Your task to perform on an android device: Do I have any events this weekend? Image 0: 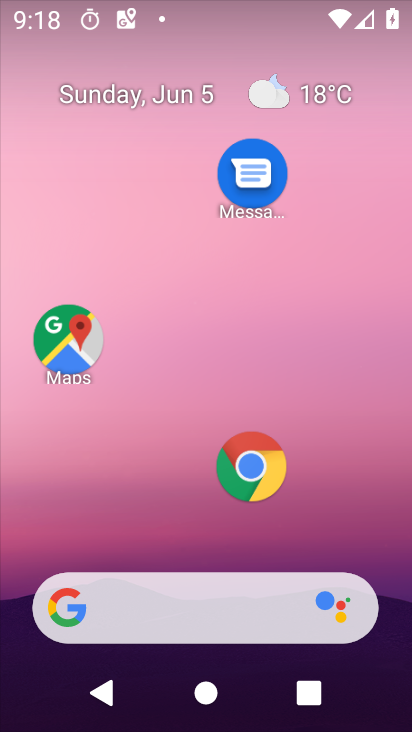
Step 0: drag from (190, 536) to (216, 172)
Your task to perform on an android device: Do I have any events this weekend? Image 1: 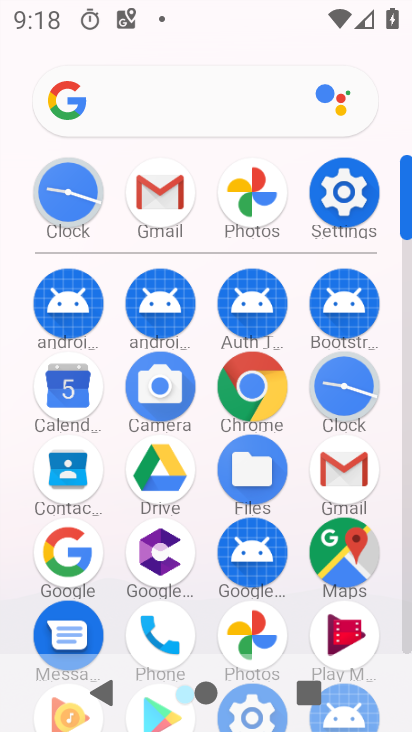
Step 1: click (69, 373)
Your task to perform on an android device: Do I have any events this weekend? Image 2: 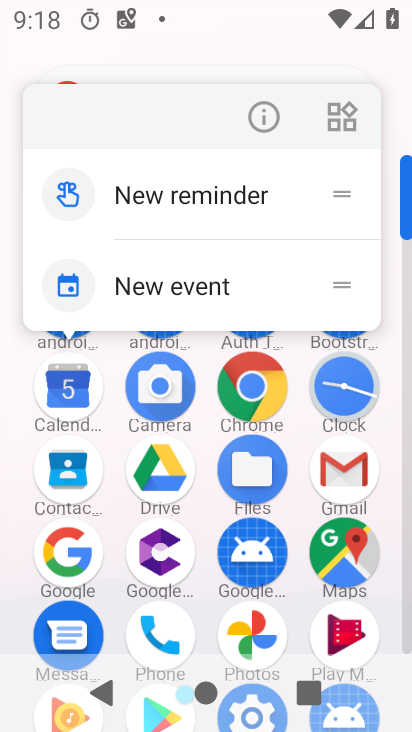
Step 2: click (267, 114)
Your task to perform on an android device: Do I have any events this weekend? Image 3: 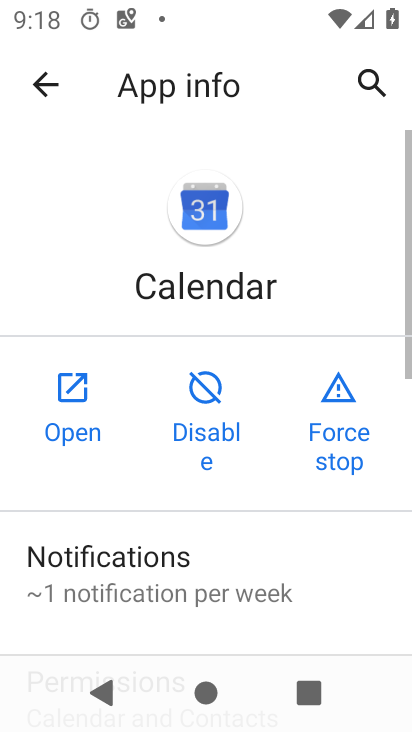
Step 3: click (59, 394)
Your task to perform on an android device: Do I have any events this weekend? Image 4: 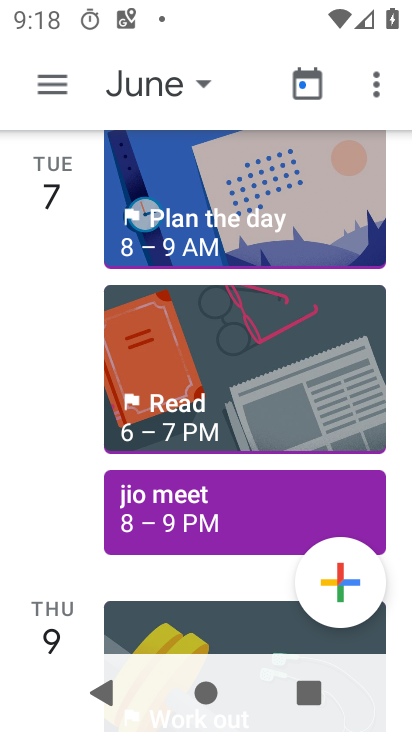
Step 4: drag from (178, 589) to (210, 174)
Your task to perform on an android device: Do I have any events this weekend? Image 5: 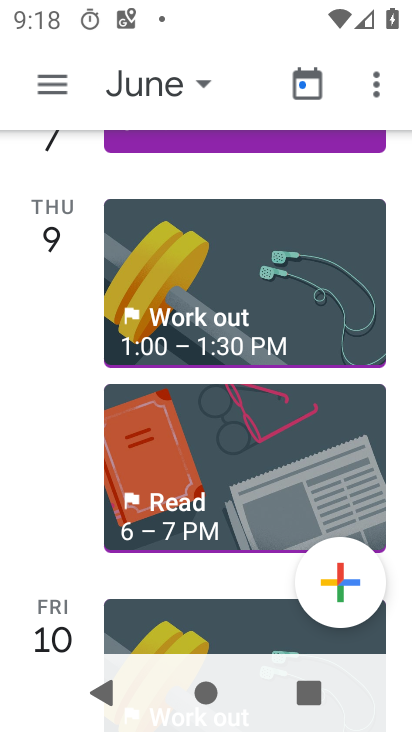
Step 5: click (158, 87)
Your task to perform on an android device: Do I have any events this weekend? Image 6: 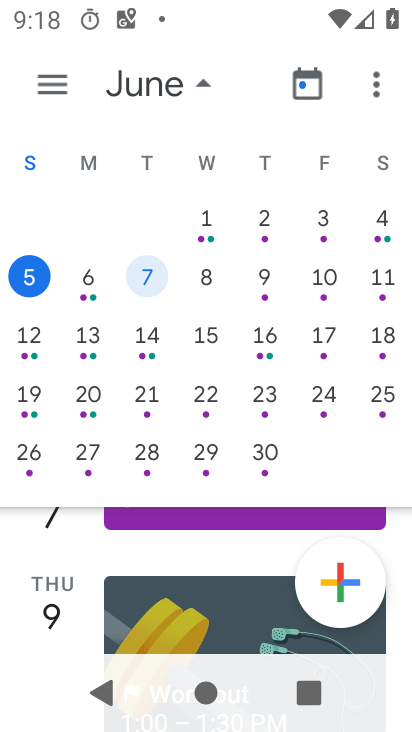
Step 6: drag from (239, 463) to (311, 175)
Your task to perform on an android device: Do I have any events this weekend? Image 7: 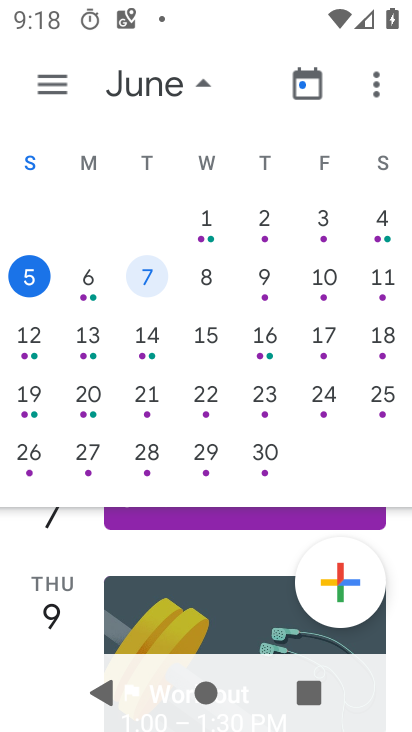
Step 7: click (264, 270)
Your task to perform on an android device: Do I have any events this weekend? Image 8: 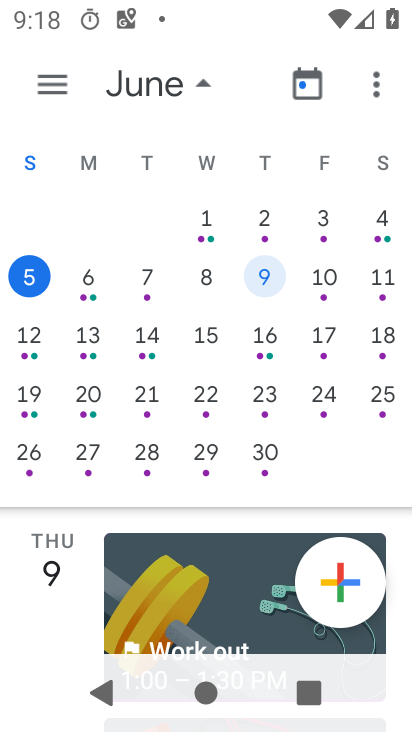
Step 8: click (377, 289)
Your task to perform on an android device: Do I have any events this weekend? Image 9: 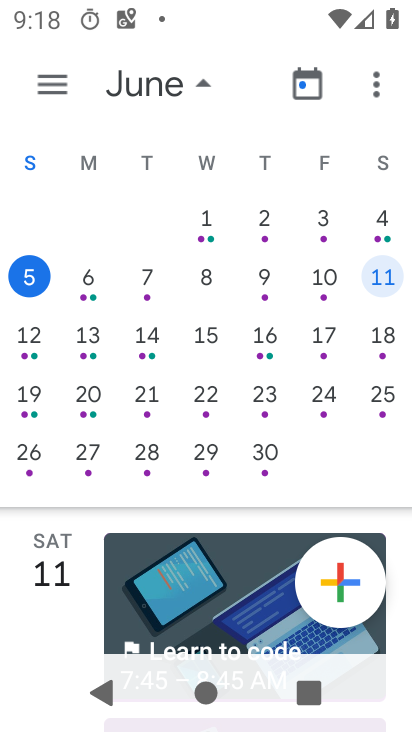
Step 9: task complete